Your task to perform on an android device: check battery use Image 0: 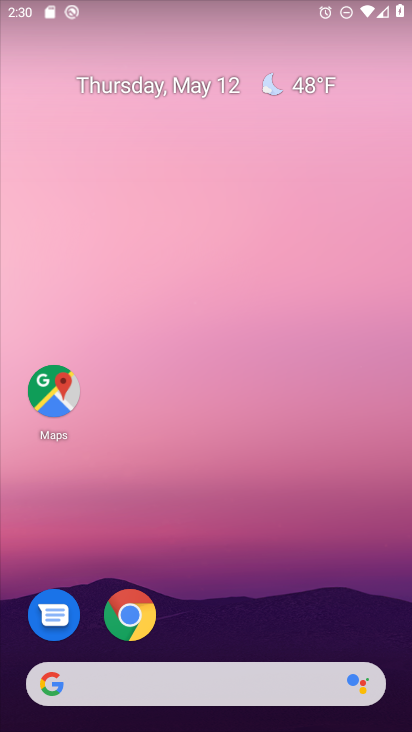
Step 0: drag from (169, 635) to (204, 104)
Your task to perform on an android device: check battery use Image 1: 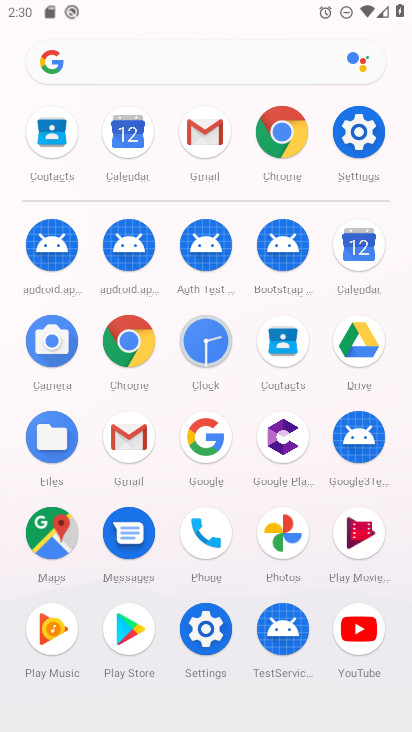
Step 1: click (351, 125)
Your task to perform on an android device: check battery use Image 2: 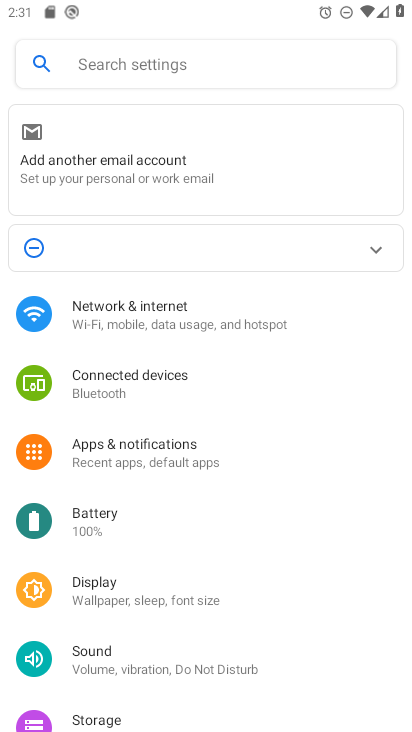
Step 2: click (161, 531)
Your task to perform on an android device: check battery use Image 3: 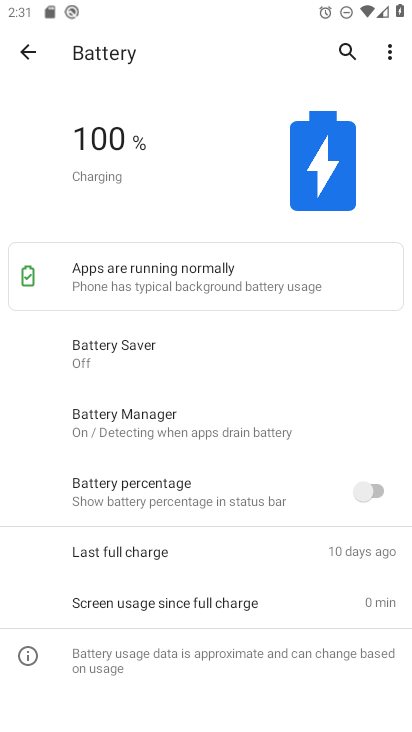
Step 3: task complete